Your task to perform on an android device: turn off notifications in google photos Image 0: 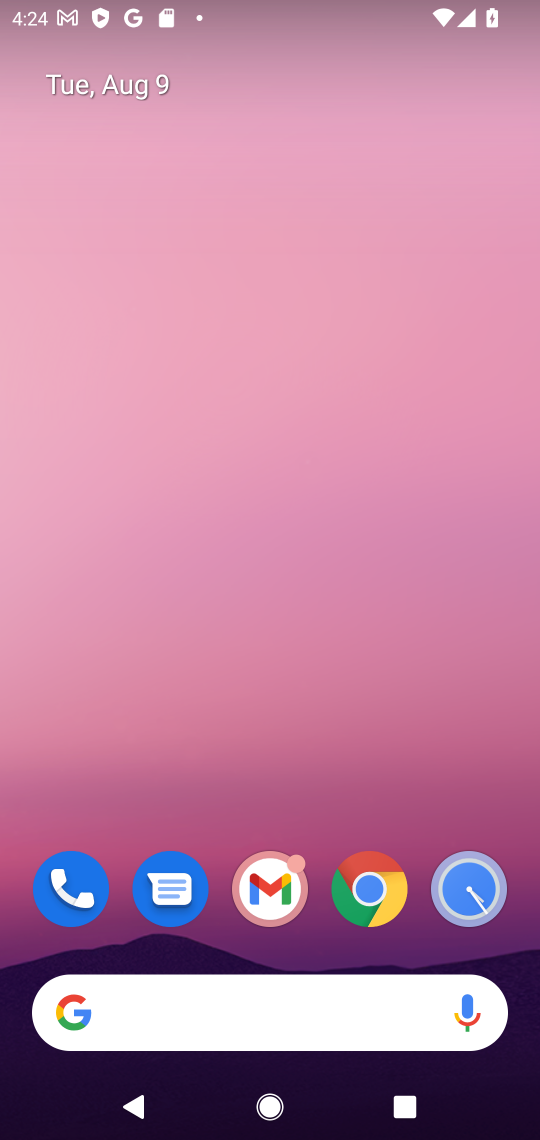
Step 0: drag from (288, 782) to (337, 2)
Your task to perform on an android device: turn off notifications in google photos Image 1: 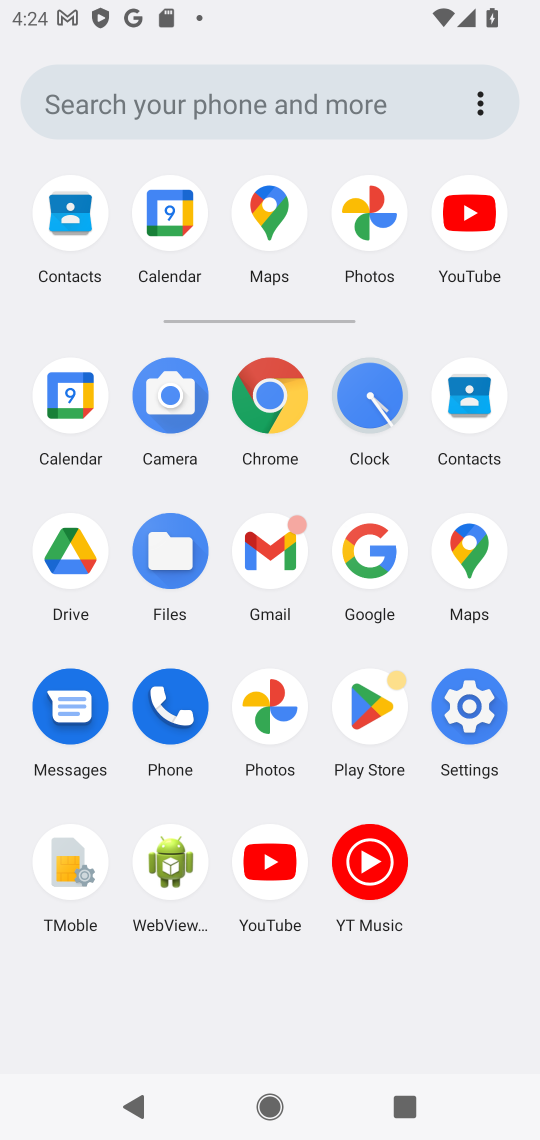
Step 1: click (364, 206)
Your task to perform on an android device: turn off notifications in google photos Image 2: 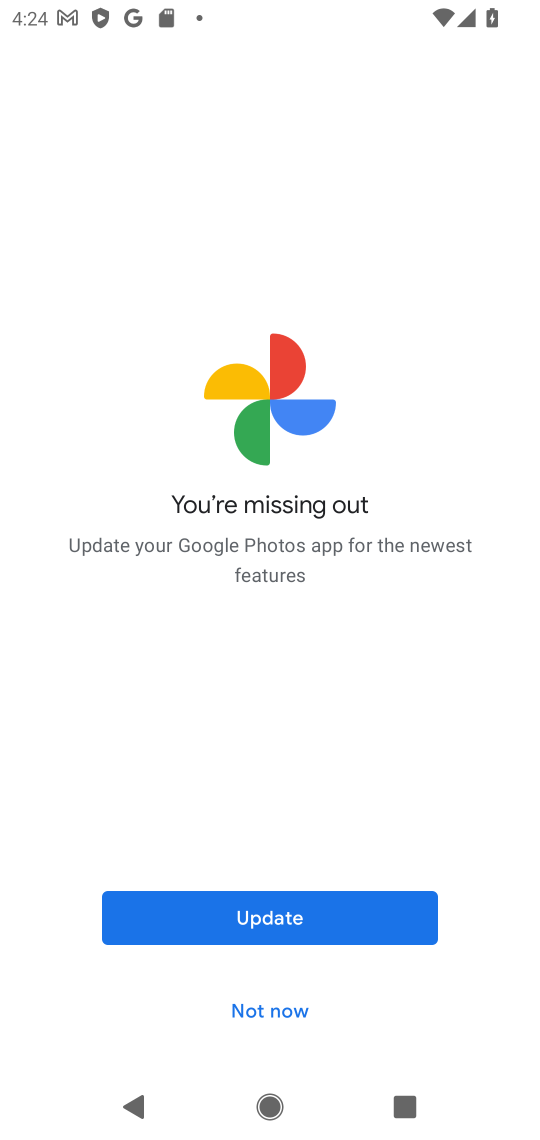
Step 2: click (294, 1010)
Your task to perform on an android device: turn off notifications in google photos Image 3: 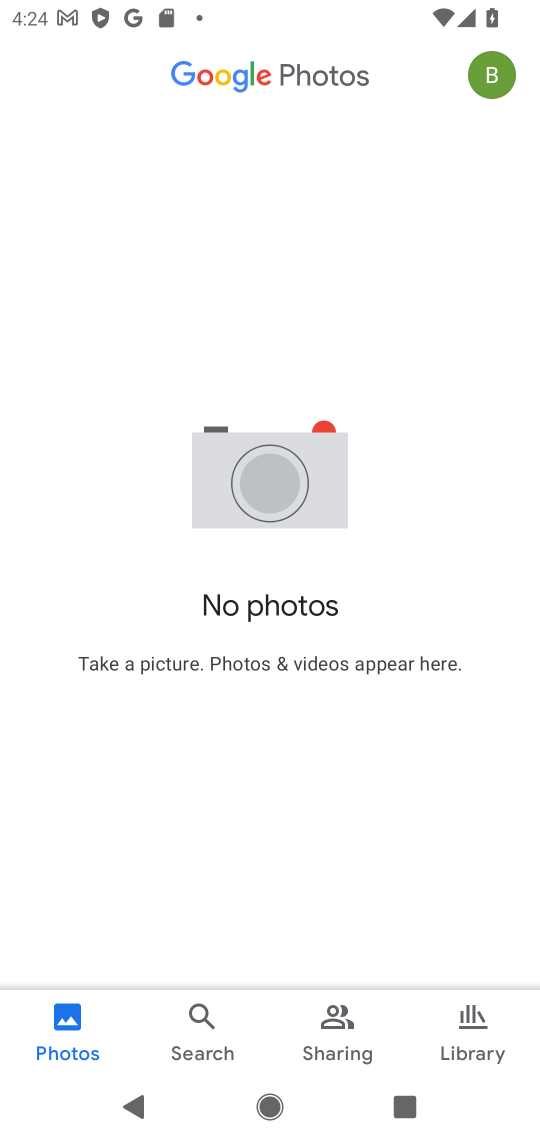
Step 3: click (482, 81)
Your task to perform on an android device: turn off notifications in google photos Image 4: 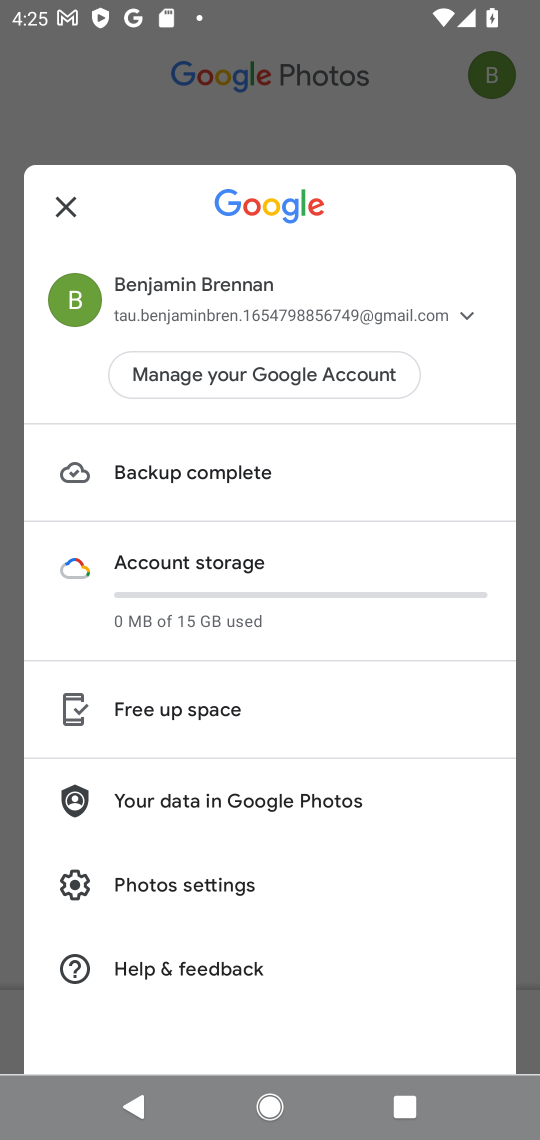
Step 4: click (215, 875)
Your task to perform on an android device: turn off notifications in google photos Image 5: 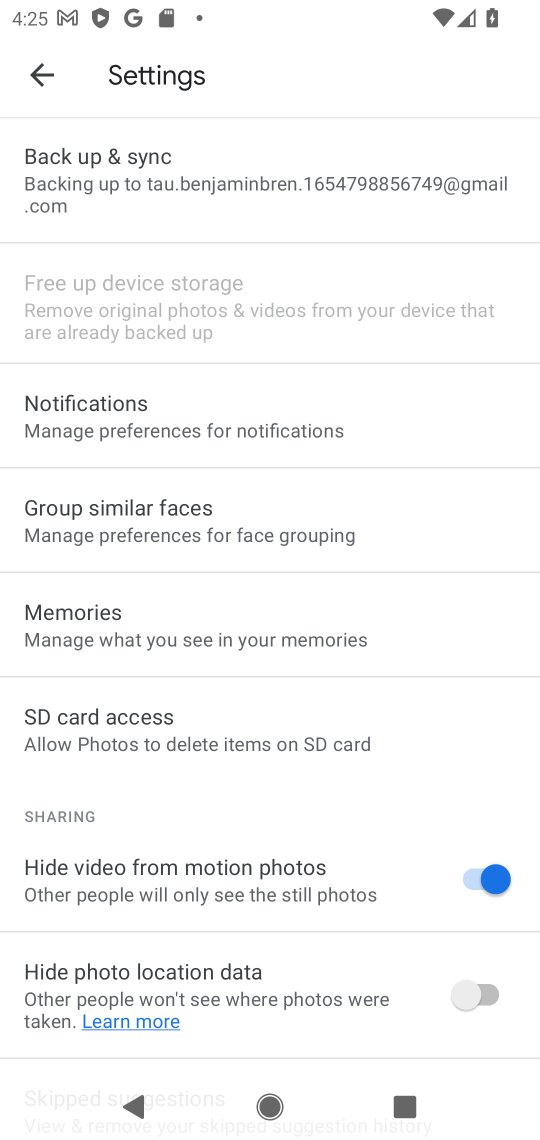
Step 5: click (250, 417)
Your task to perform on an android device: turn off notifications in google photos Image 6: 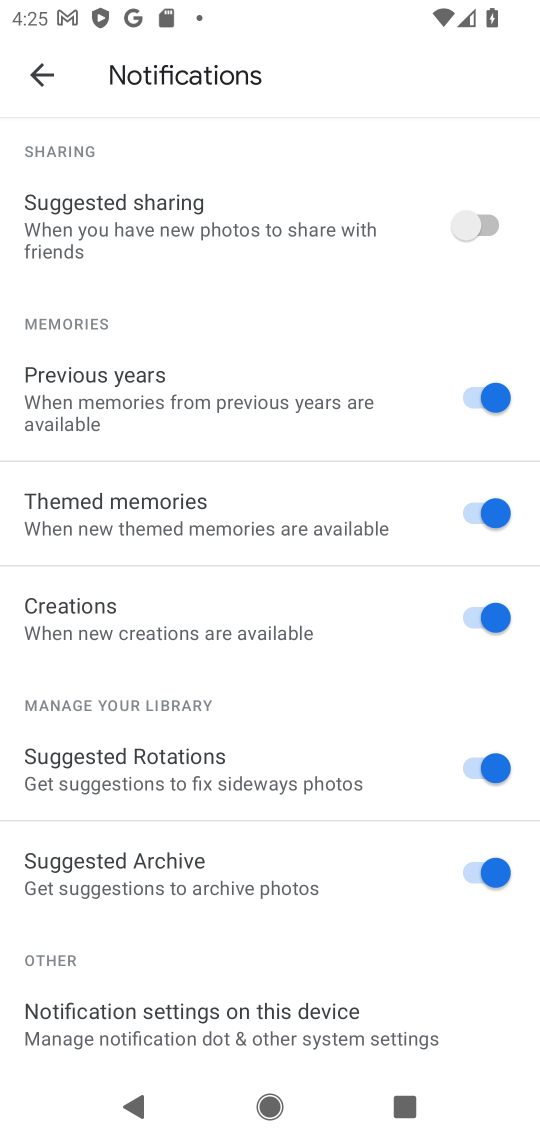
Step 6: click (234, 1015)
Your task to perform on an android device: turn off notifications in google photos Image 7: 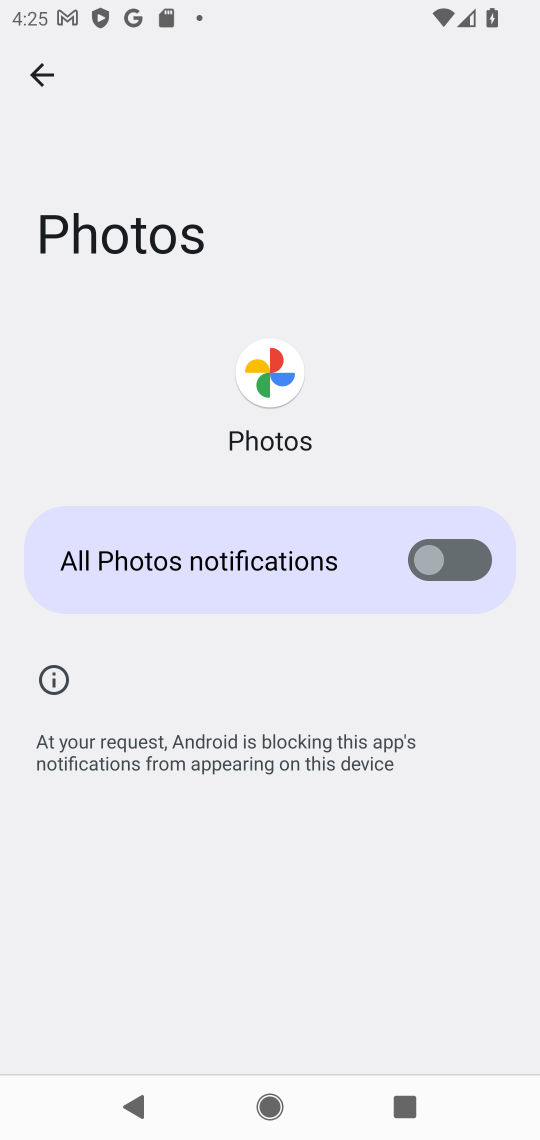
Step 7: task complete